Your task to perform on an android device: Open the Play Movies app and select the watchlist tab. Image 0: 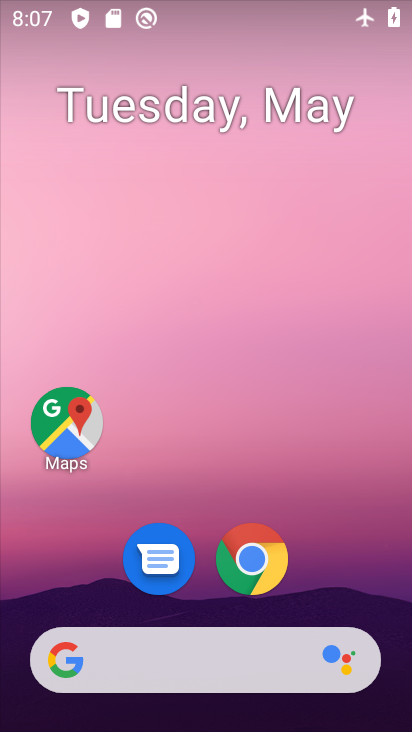
Step 0: drag from (201, 595) to (205, 213)
Your task to perform on an android device: Open the Play Movies app and select the watchlist tab. Image 1: 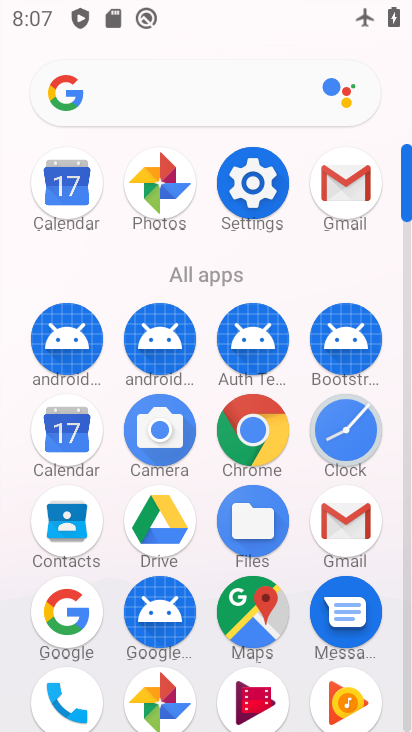
Step 1: click (267, 684)
Your task to perform on an android device: Open the Play Movies app and select the watchlist tab. Image 2: 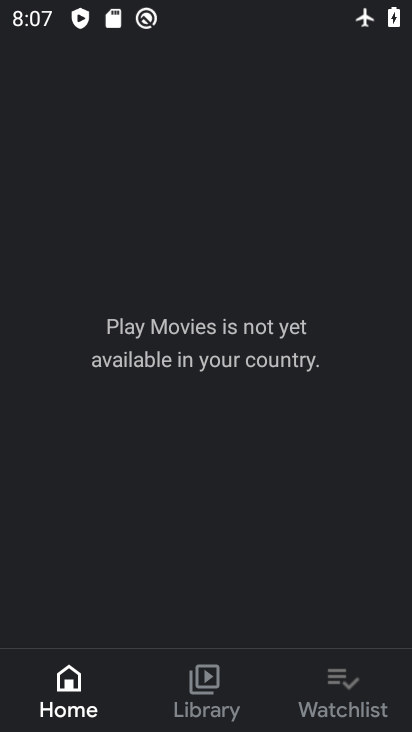
Step 2: click (348, 699)
Your task to perform on an android device: Open the Play Movies app and select the watchlist tab. Image 3: 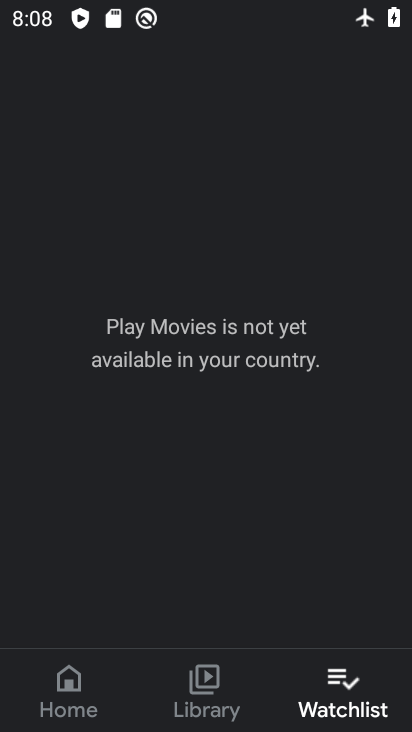
Step 3: task complete